Your task to perform on an android device: Open ESPN.com Image 0: 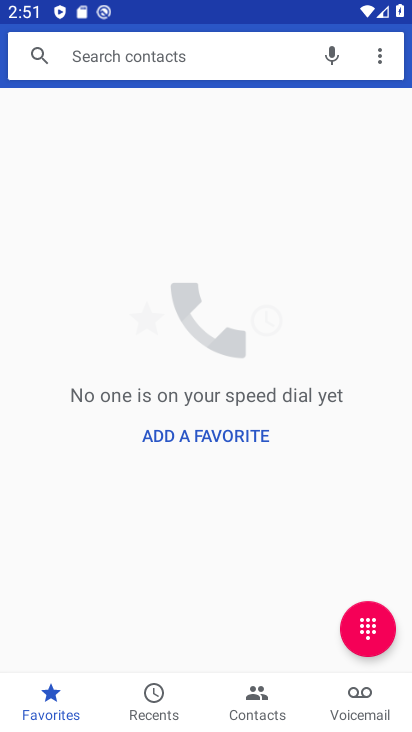
Step 0: press back button
Your task to perform on an android device: Open ESPN.com Image 1: 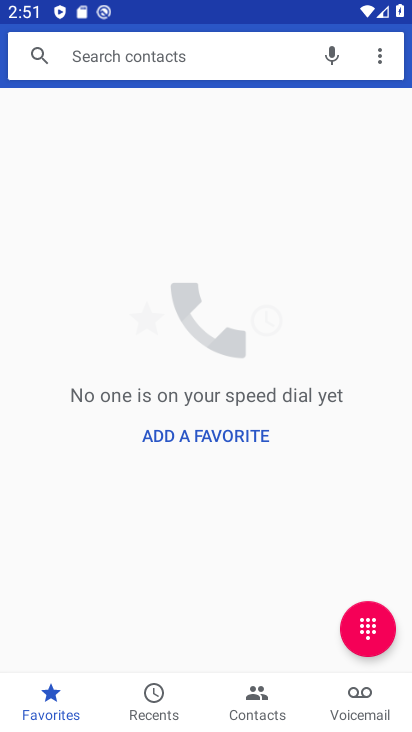
Step 1: press home button
Your task to perform on an android device: Open ESPN.com Image 2: 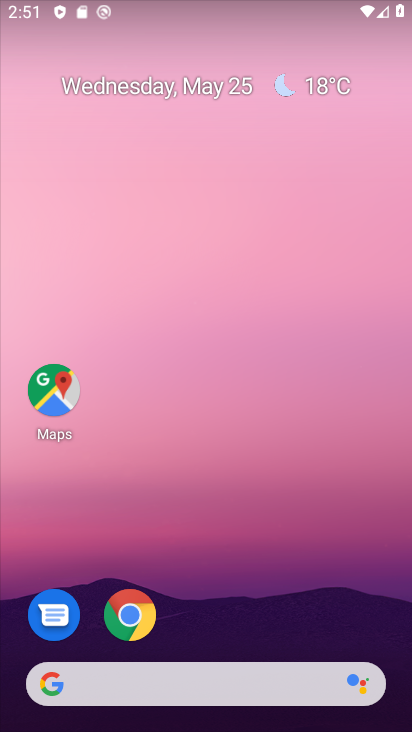
Step 2: drag from (300, 611) to (292, 1)
Your task to perform on an android device: Open ESPN.com Image 3: 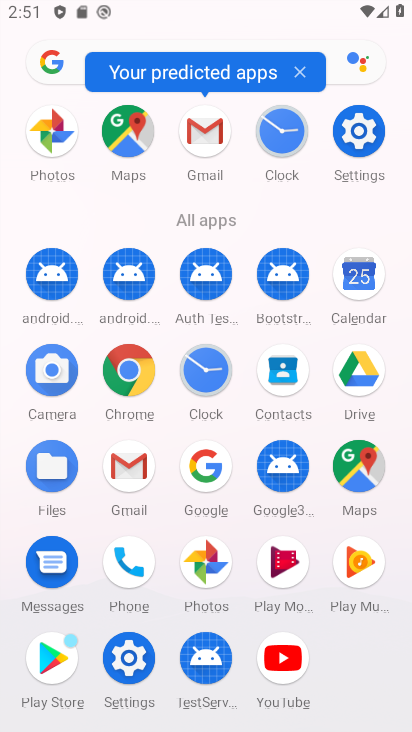
Step 3: click (135, 392)
Your task to perform on an android device: Open ESPN.com Image 4: 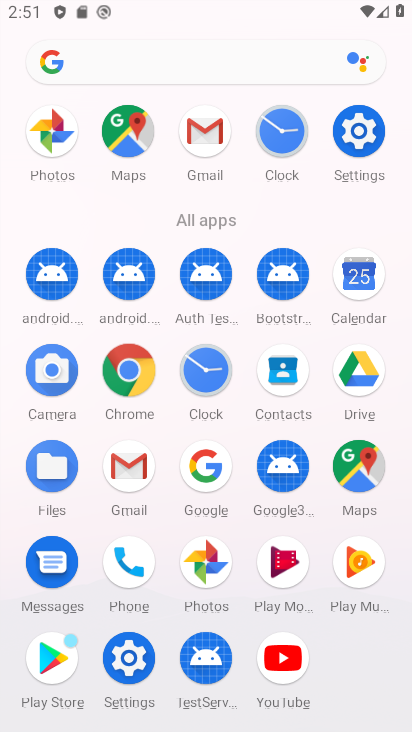
Step 4: drag from (128, 381) to (102, 358)
Your task to perform on an android device: Open ESPN.com Image 5: 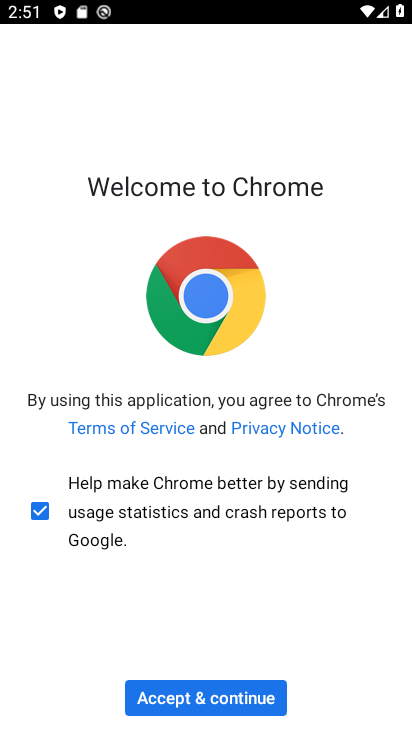
Step 5: click (194, 689)
Your task to perform on an android device: Open ESPN.com Image 6: 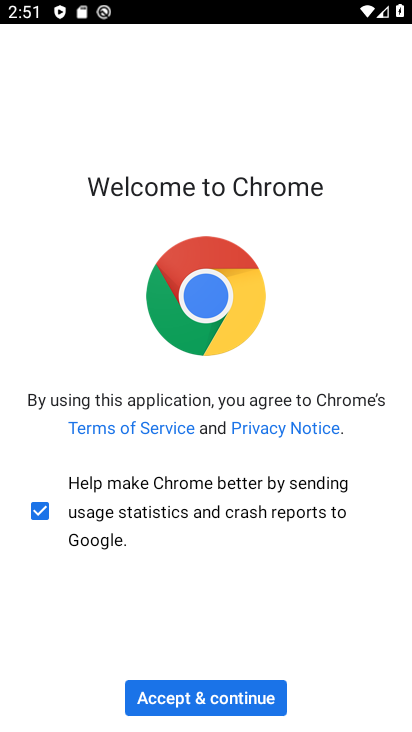
Step 6: click (194, 690)
Your task to perform on an android device: Open ESPN.com Image 7: 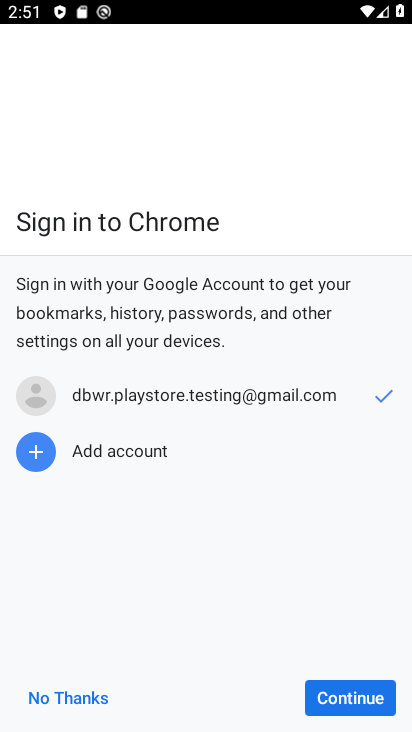
Step 7: click (196, 694)
Your task to perform on an android device: Open ESPN.com Image 8: 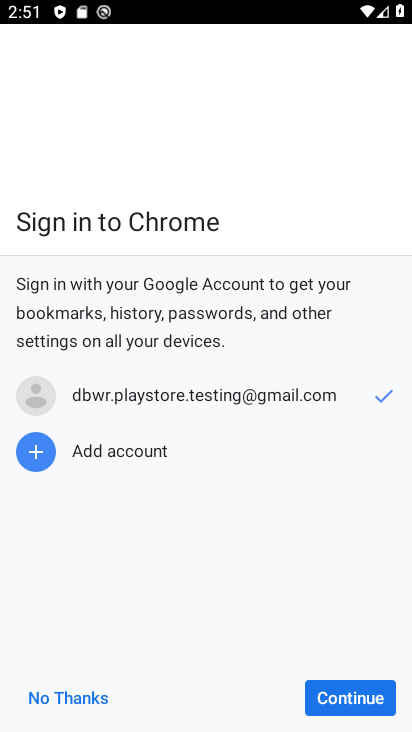
Step 8: click (335, 701)
Your task to perform on an android device: Open ESPN.com Image 9: 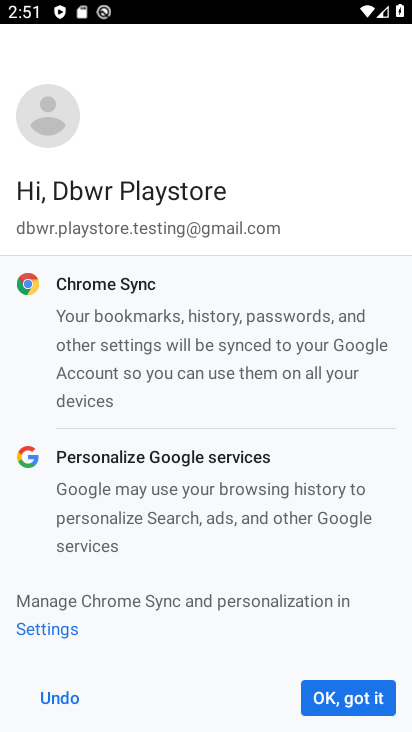
Step 9: click (361, 697)
Your task to perform on an android device: Open ESPN.com Image 10: 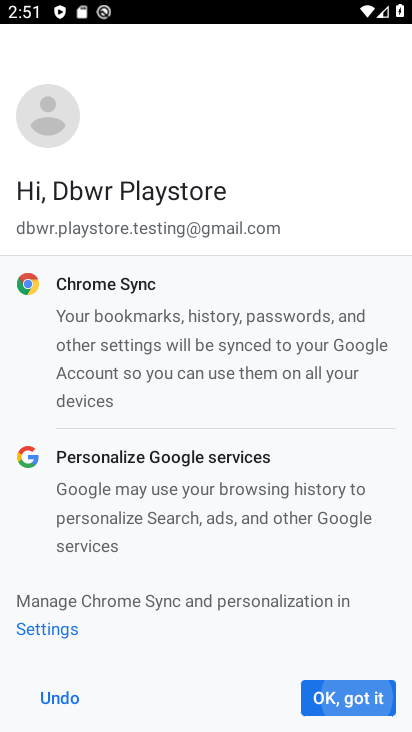
Step 10: click (361, 697)
Your task to perform on an android device: Open ESPN.com Image 11: 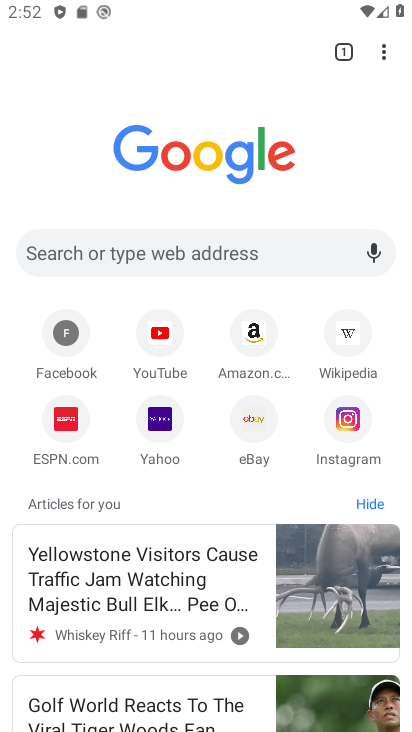
Step 11: click (66, 415)
Your task to perform on an android device: Open ESPN.com Image 12: 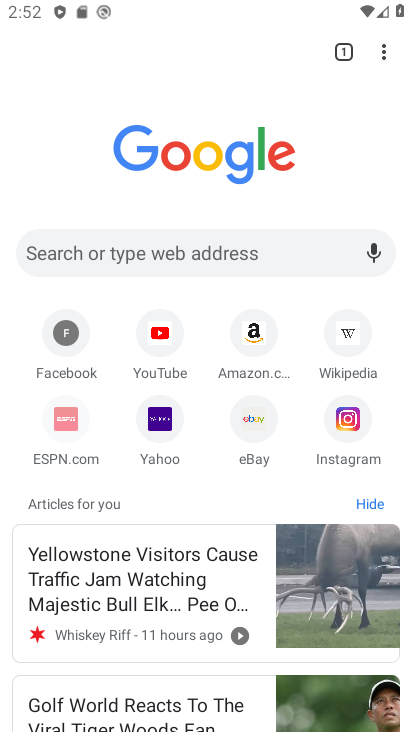
Step 12: click (66, 415)
Your task to perform on an android device: Open ESPN.com Image 13: 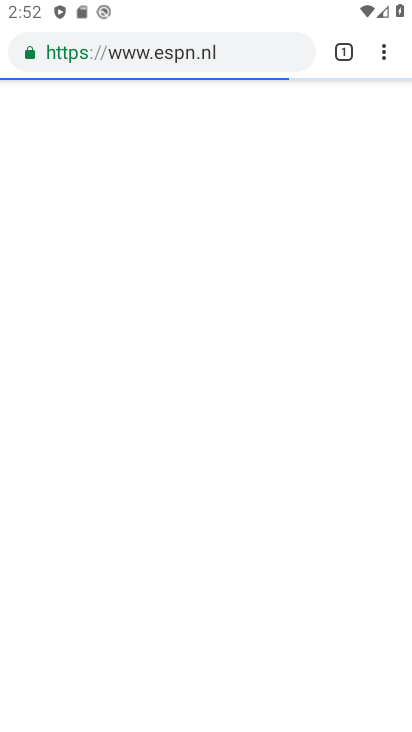
Step 13: task complete